Your task to perform on an android device: Open maps Image 0: 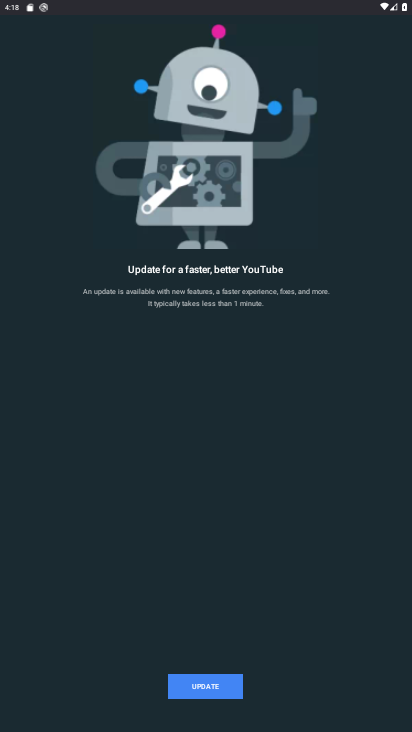
Step 0: press home button
Your task to perform on an android device: Open maps Image 1: 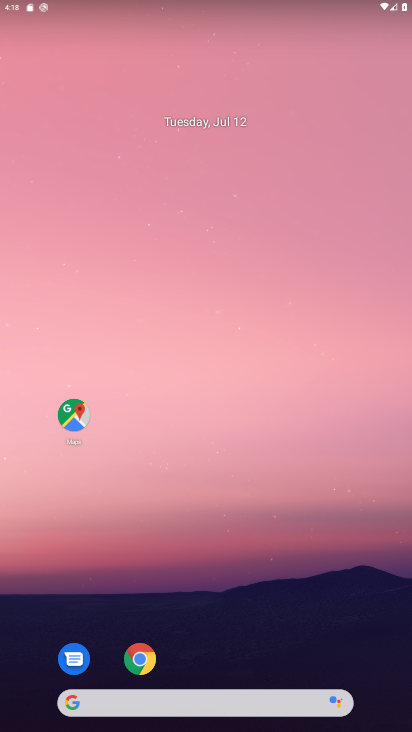
Step 1: click (74, 418)
Your task to perform on an android device: Open maps Image 2: 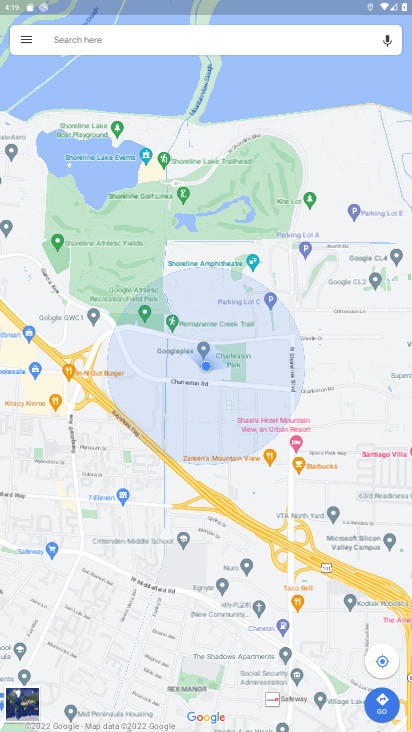
Step 2: task complete